Your task to perform on an android device: Go to eBay Image 0: 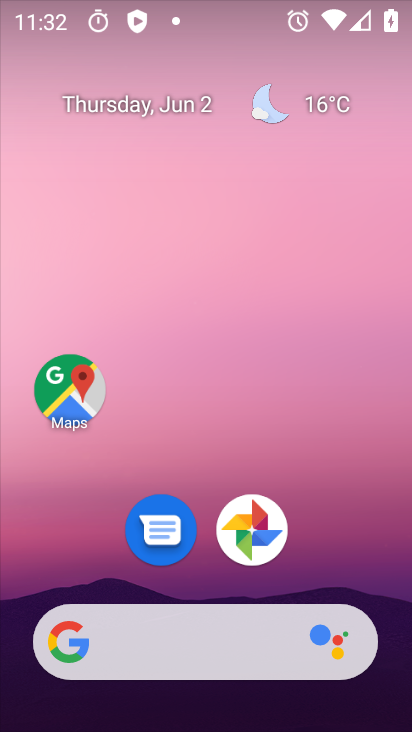
Step 0: drag from (229, 522) to (144, 21)
Your task to perform on an android device: Go to eBay Image 1: 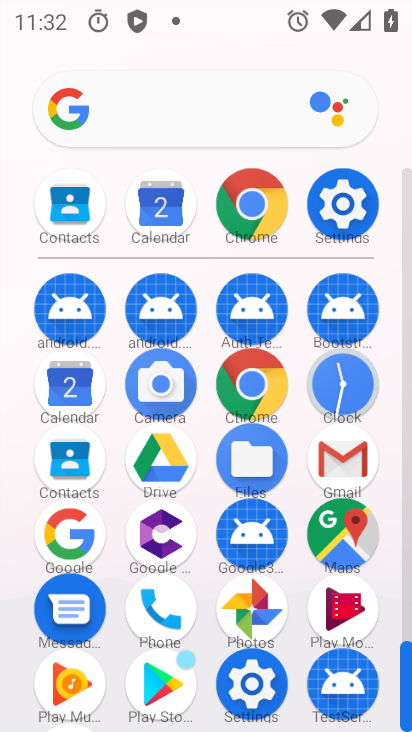
Step 1: click (332, 560)
Your task to perform on an android device: Go to eBay Image 2: 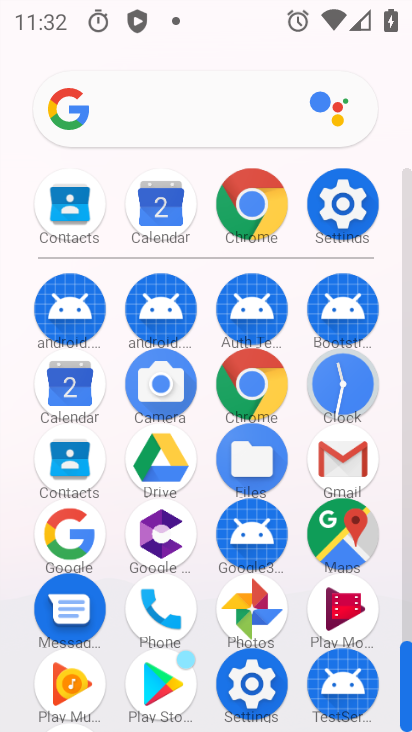
Step 2: click (337, 543)
Your task to perform on an android device: Go to eBay Image 3: 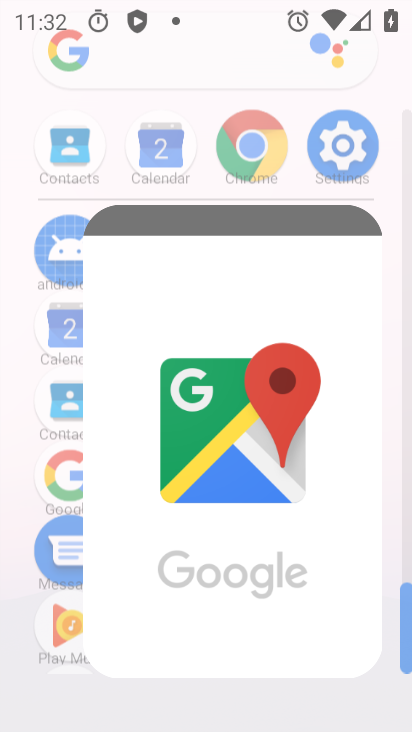
Step 3: click (339, 541)
Your task to perform on an android device: Go to eBay Image 4: 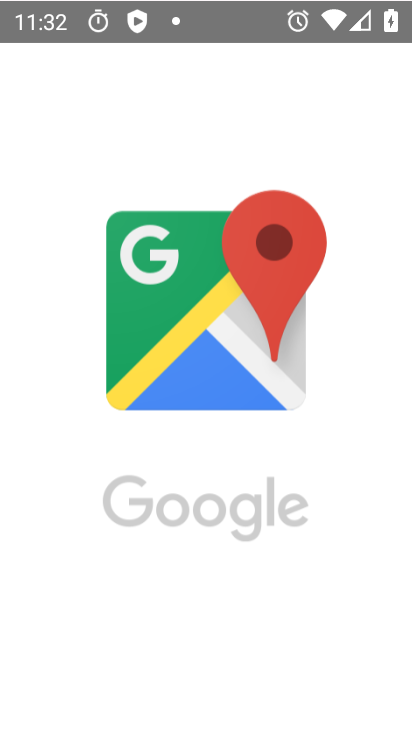
Step 4: click (339, 541)
Your task to perform on an android device: Go to eBay Image 5: 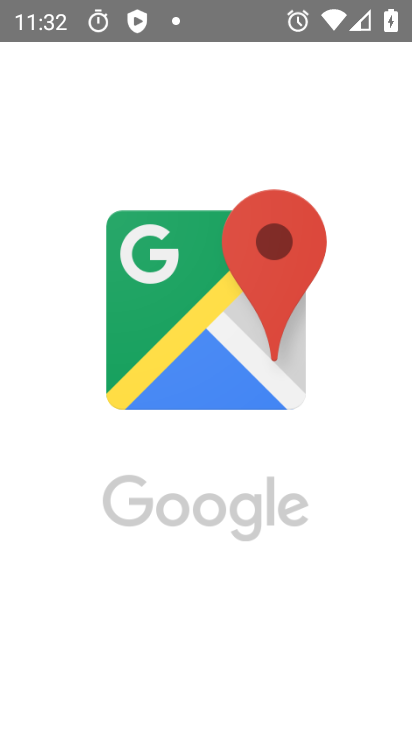
Step 5: click (339, 541)
Your task to perform on an android device: Go to eBay Image 6: 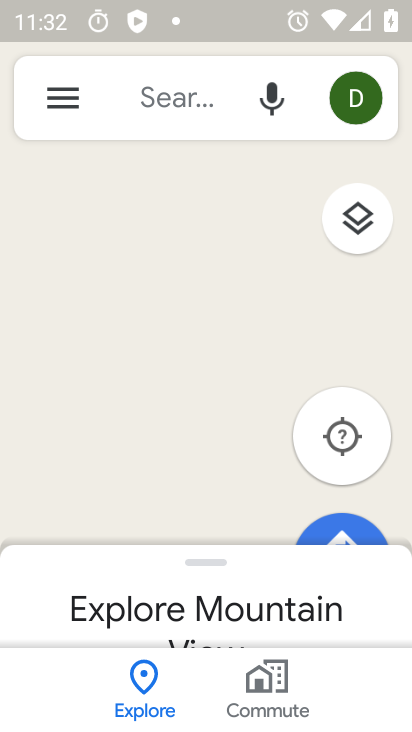
Step 6: press back button
Your task to perform on an android device: Go to eBay Image 7: 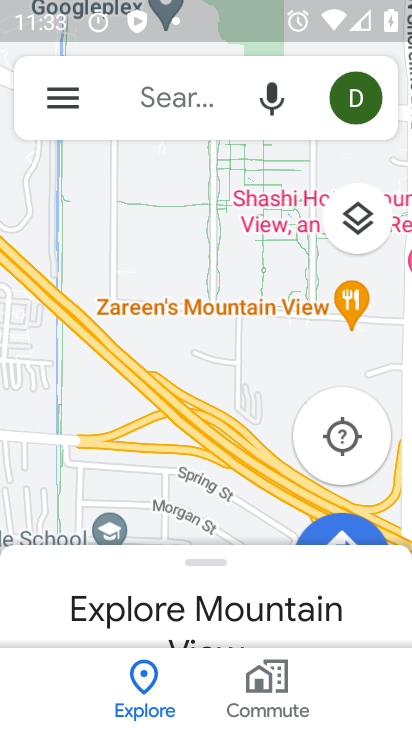
Step 7: press home button
Your task to perform on an android device: Go to eBay Image 8: 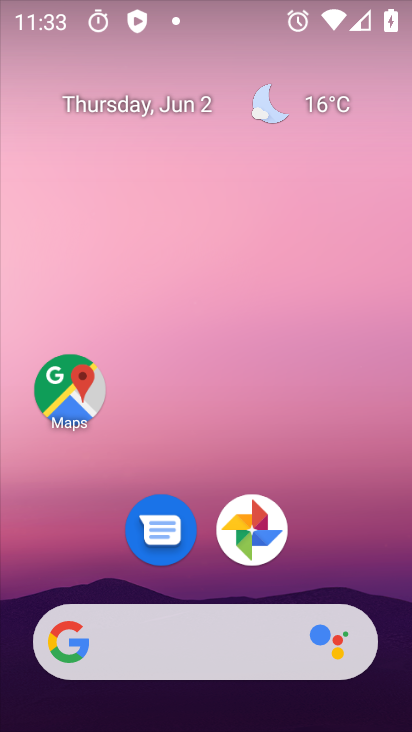
Step 8: drag from (246, 595) to (180, 84)
Your task to perform on an android device: Go to eBay Image 9: 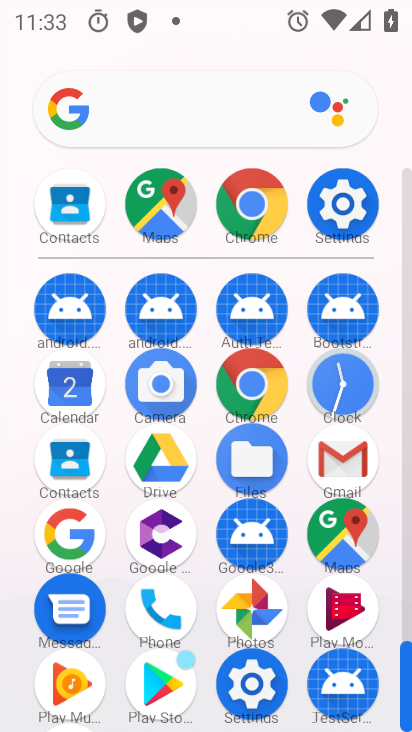
Step 9: click (168, 193)
Your task to perform on an android device: Go to eBay Image 10: 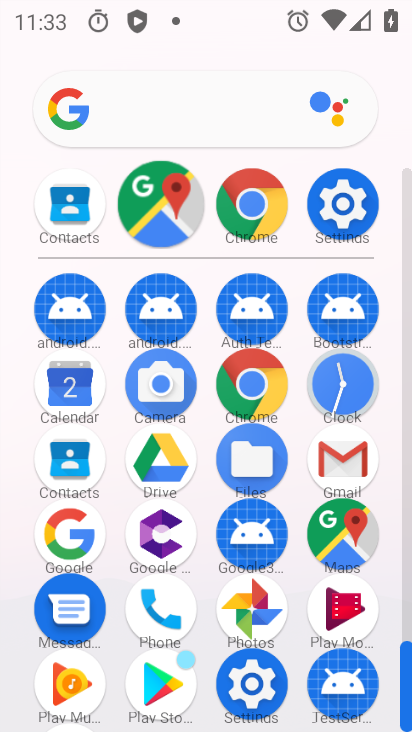
Step 10: click (166, 193)
Your task to perform on an android device: Go to eBay Image 11: 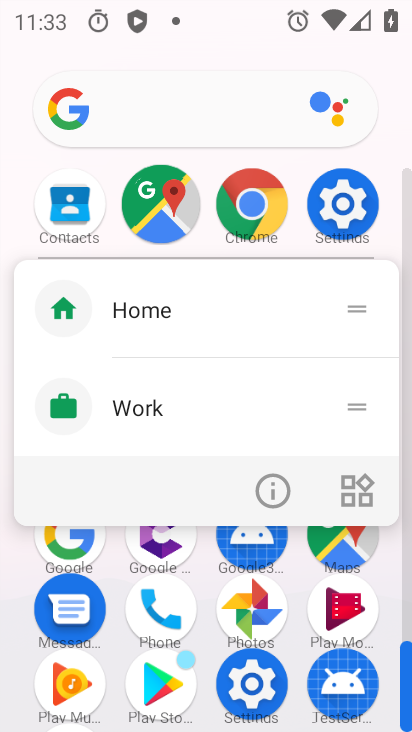
Step 11: click (166, 193)
Your task to perform on an android device: Go to eBay Image 12: 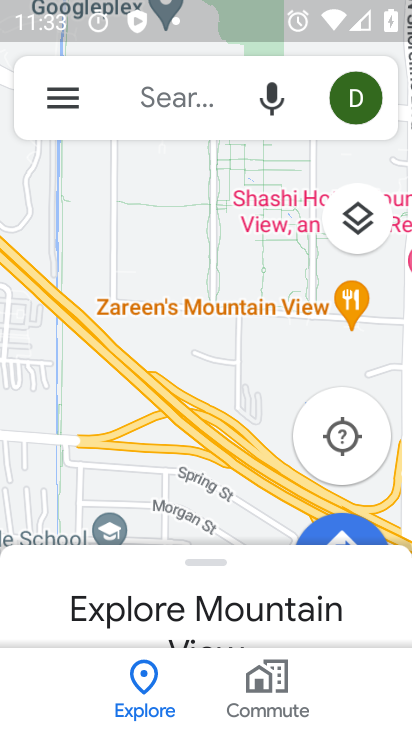
Step 12: press home button
Your task to perform on an android device: Go to eBay Image 13: 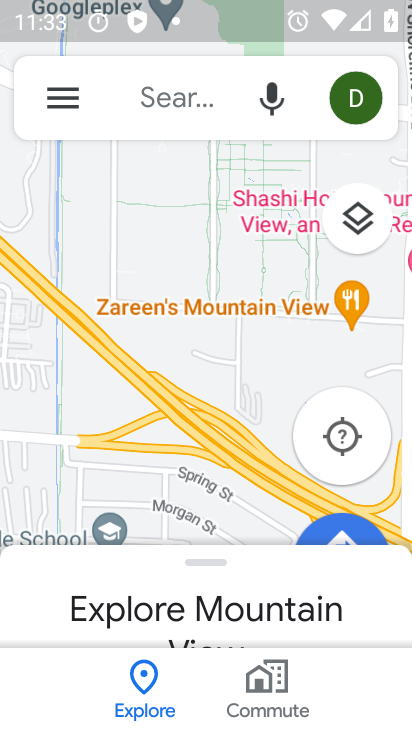
Step 13: press home button
Your task to perform on an android device: Go to eBay Image 14: 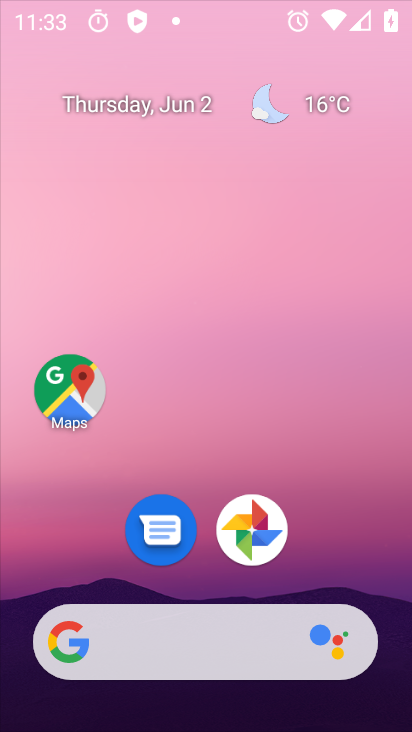
Step 14: press home button
Your task to perform on an android device: Go to eBay Image 15: 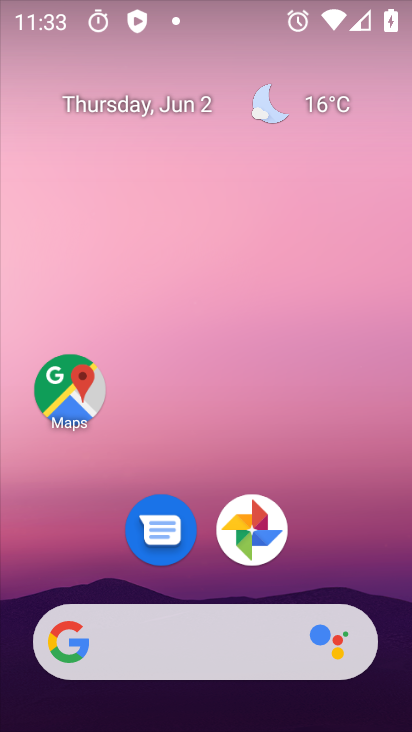
Step 15: drag from (248, 663) to (193, 22)
Your task to perform on an android device: Go to eBay Image 16: 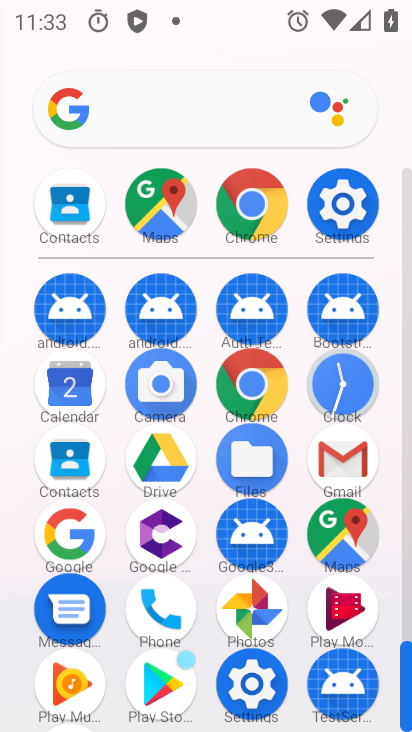
Step 16: click (254, 195)
Your task to perform on an android device: Go to eBay Image 17: 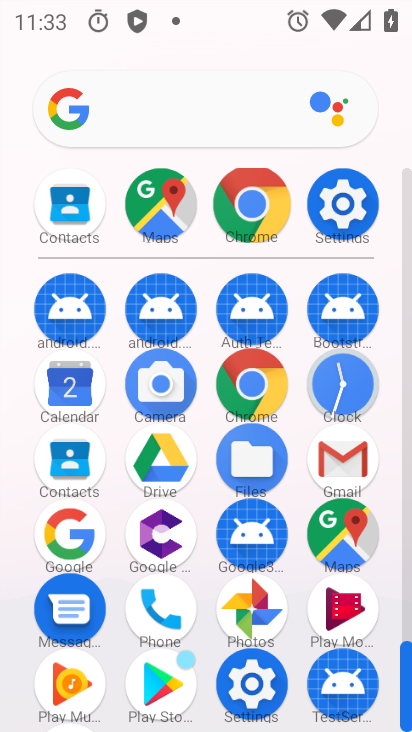
Step 17: click (254, 195)
Your task to perform on an android device: Go to eBay Image 18: 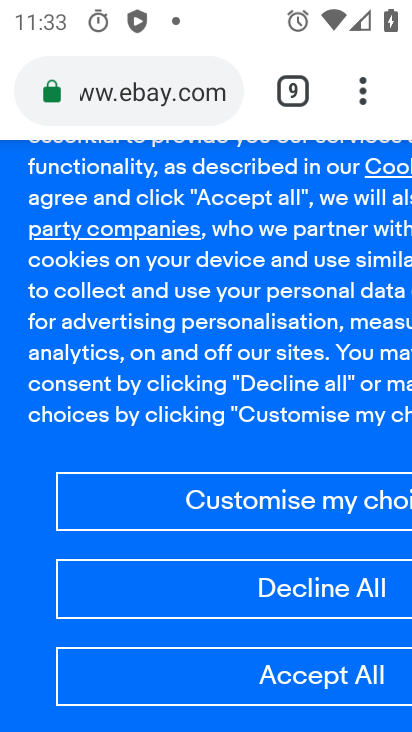
Step 18: task complete